Your task to perform on an android device: Open Google Maps Image 0: 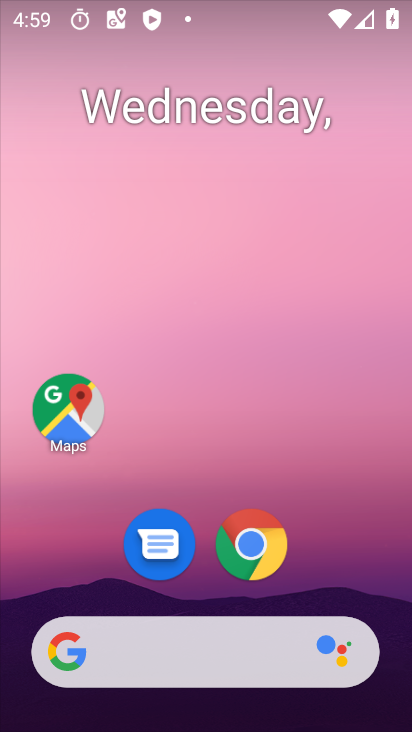
Step 0: drag from (187, 611) to (369, 42)
Your task to perform on an android device: Open Google Maps Image 1: 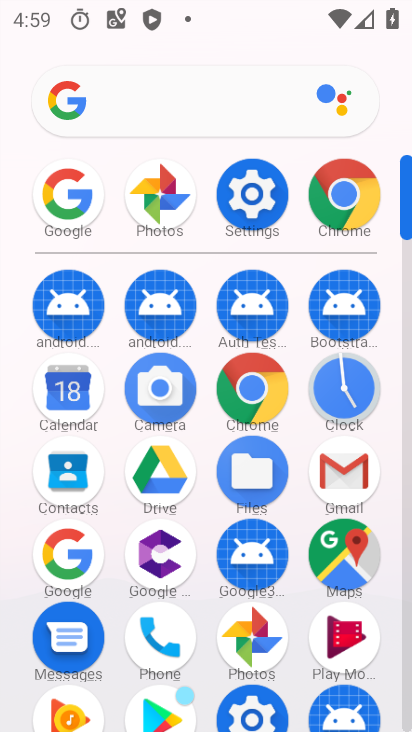
Step 1: click (353, 548)
Your task to perform on an android device: Open Google Maps Image 2: 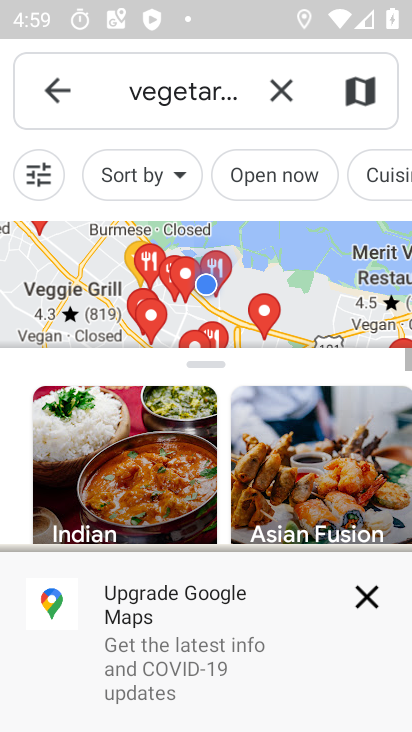
Step 2: click (40, 109)
Your task to perform on an android device: Open Google Maps Image 3: 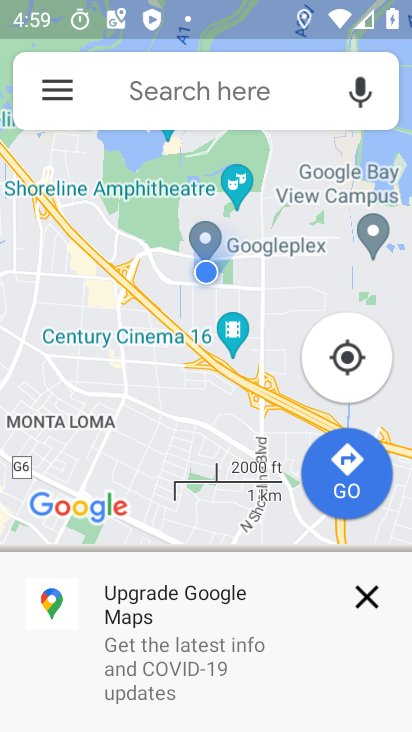
Step 3: task complete